Your task to perform on an android device: make emails show in primary in the gmail app Image 0: 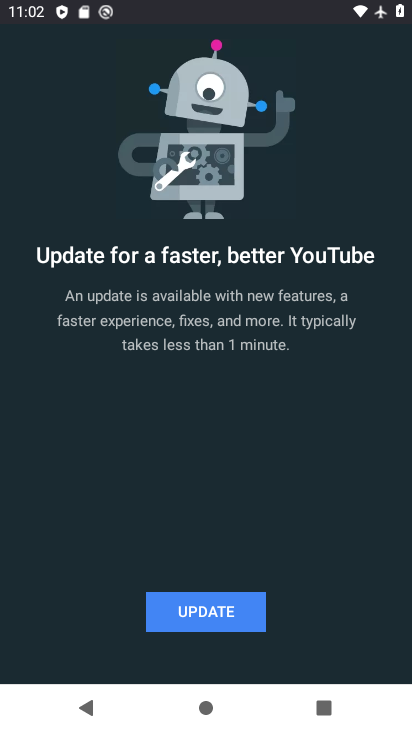
Step 0: press home button
Your task to perform on an android device: make emails show in primary in the gmail app Image 1: 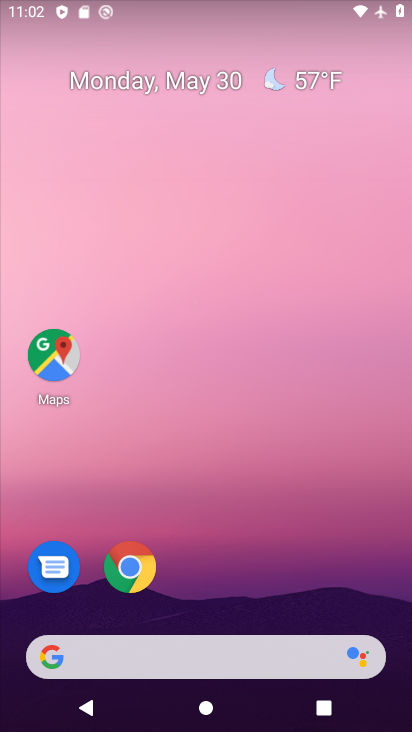
Step 1: drag from (182, 593) to (186, 241)
Your task to perform on an android device: make emails show in primary in the gmail app Image 2: 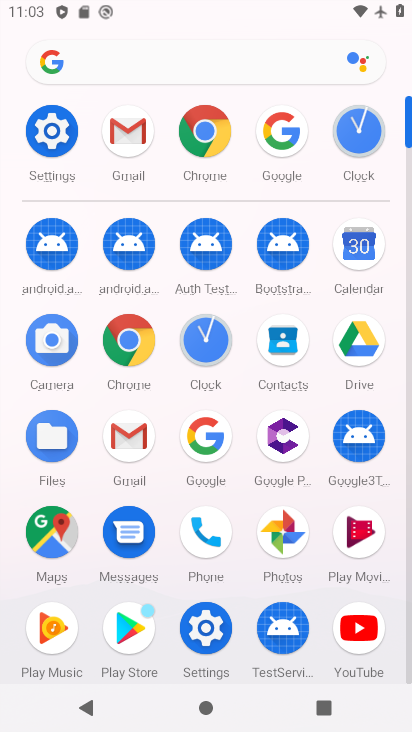
Step 2: click (133, 446)
Your task to perform on an android device: make emails show in primary in the gmail app Image 3: 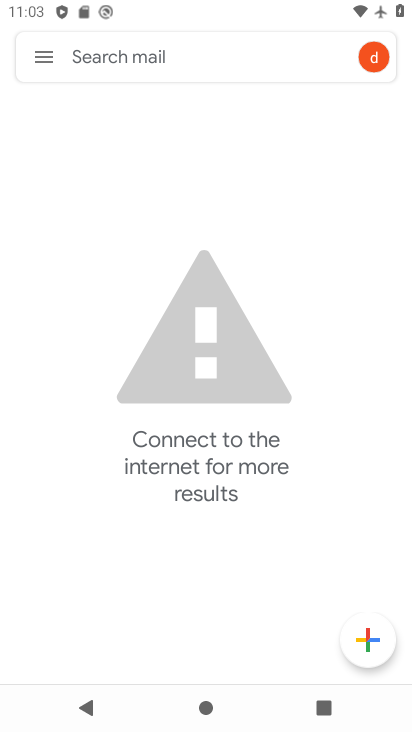
Step 3: click (42, 59)
Your task to perform on an android device: make emails show in primary in the gmail app Image 4: 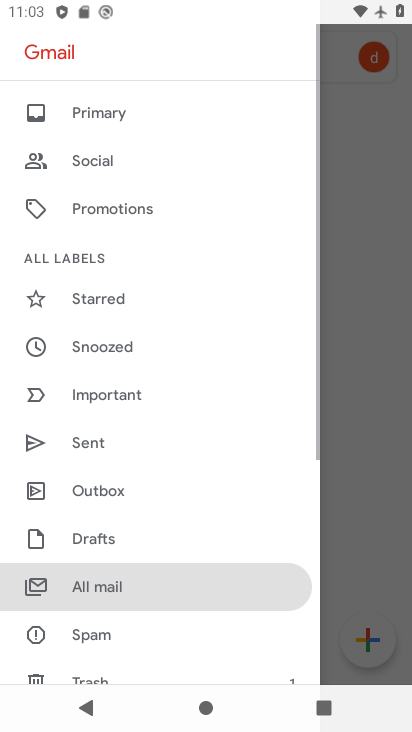
Step 4: drag from (108, 538) to (122, 225)
Your task to perform on an android device: make emails show in primary in the gmail app Image 5: 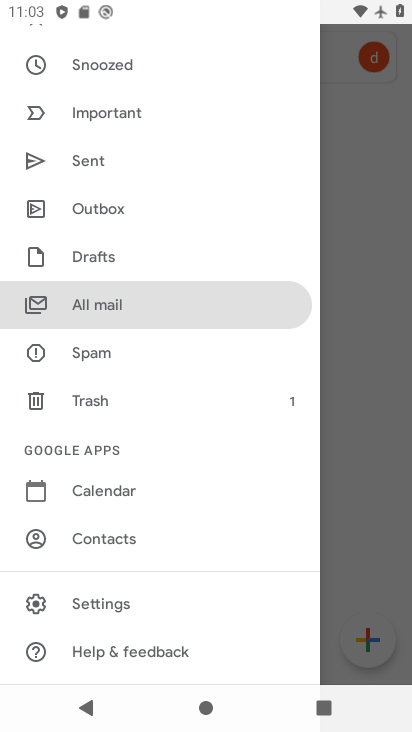
Step 5: click (114, 588)
Your task to perform on an android device: make emails show in primary in the gmail app Image 6: 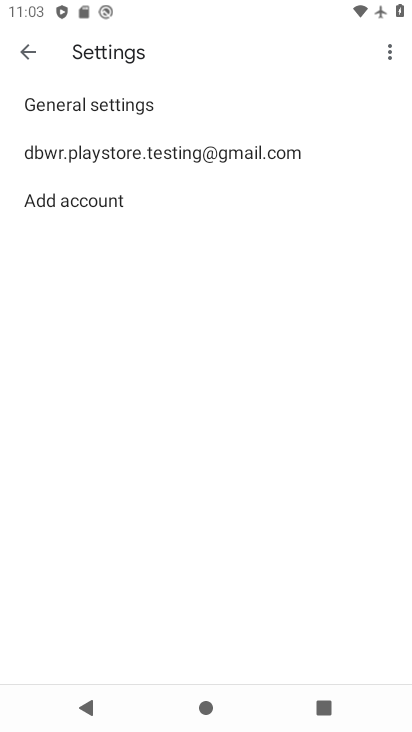
Step 6: click (112, 150)
Your task to perform on an android device: make emails show in primary in the gmail app Image 7: 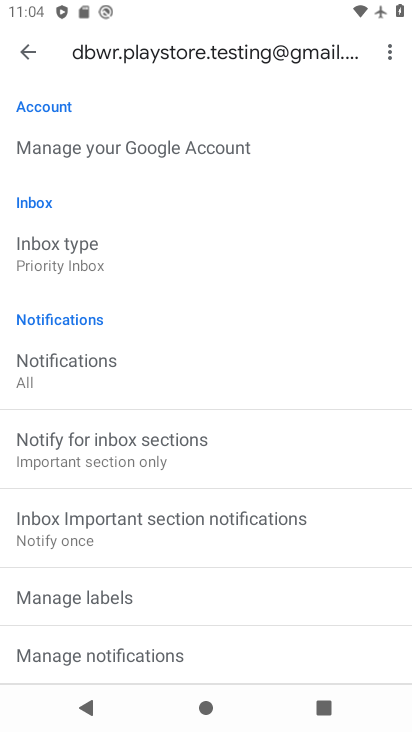
Step 7: click (81, 245)
Your task to perform on an android device: make emails show in primary in the gmail app Image 8: 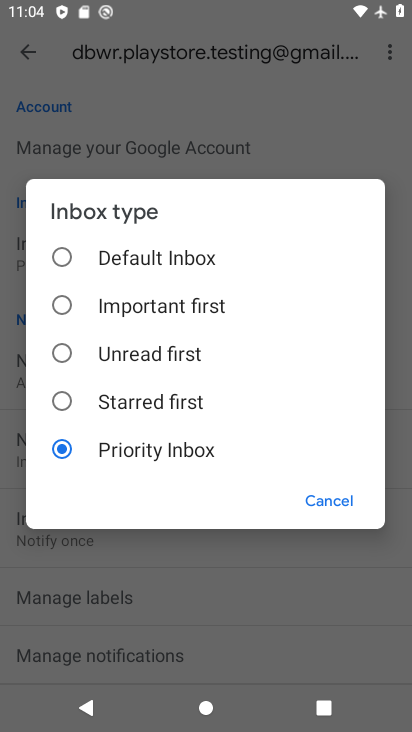
Step 8: click (161, 259)
Your task to perform on an android device: make emails show in primary in the gmail app Image 9: 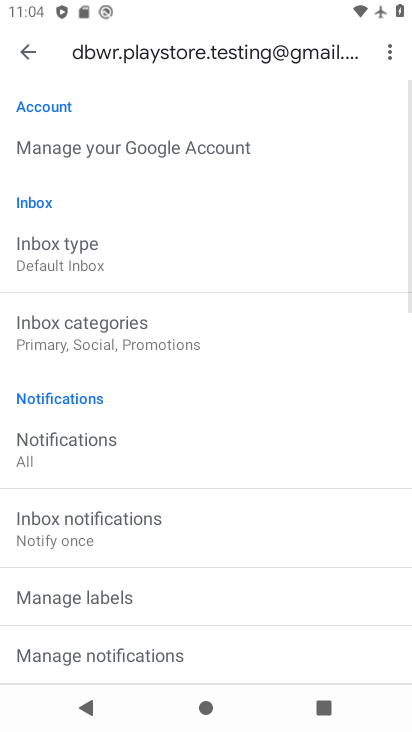
Step 9: task complete